Your task to perform on an android device: open app "Speedtest by Ookla" Image 0: 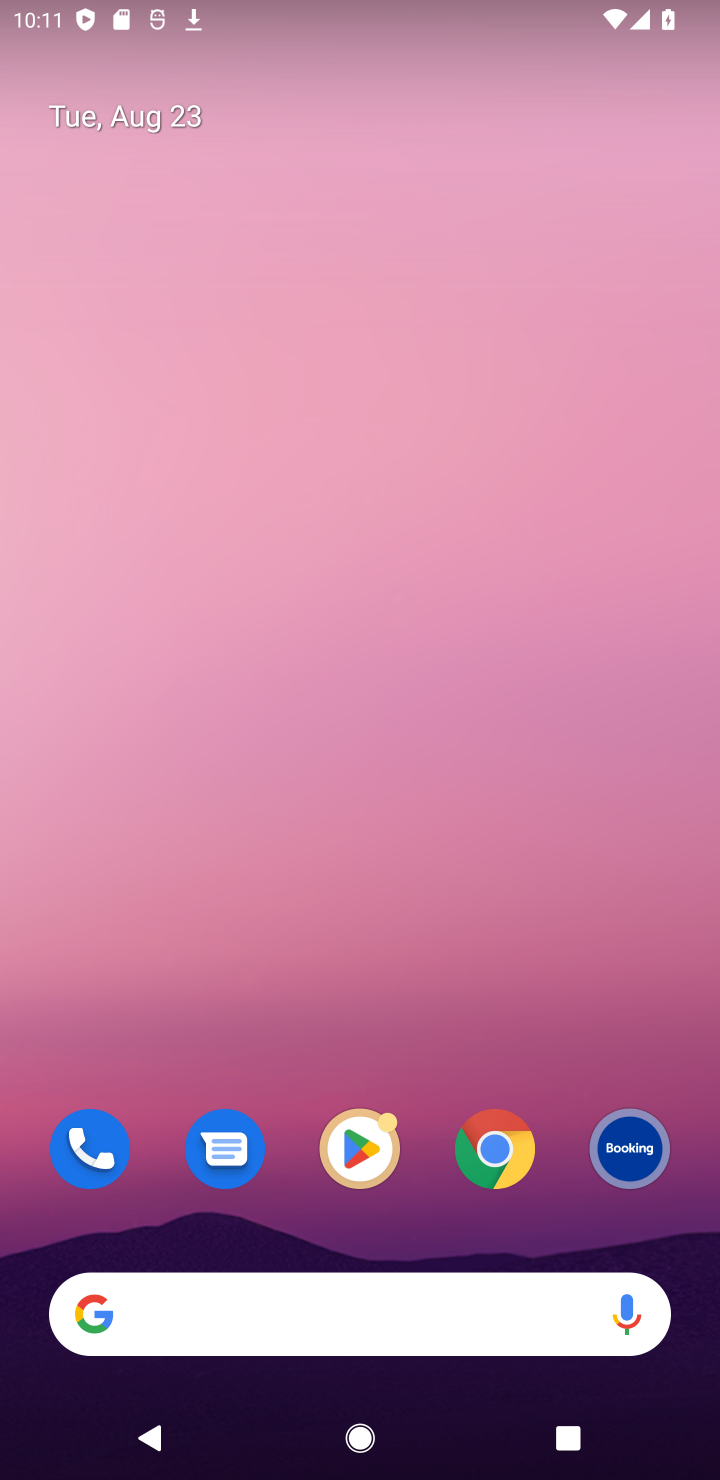
Step 0: click (338, 1168)
Your task to perform on an android device: open app "Speedtest by Ookla" Image 1: 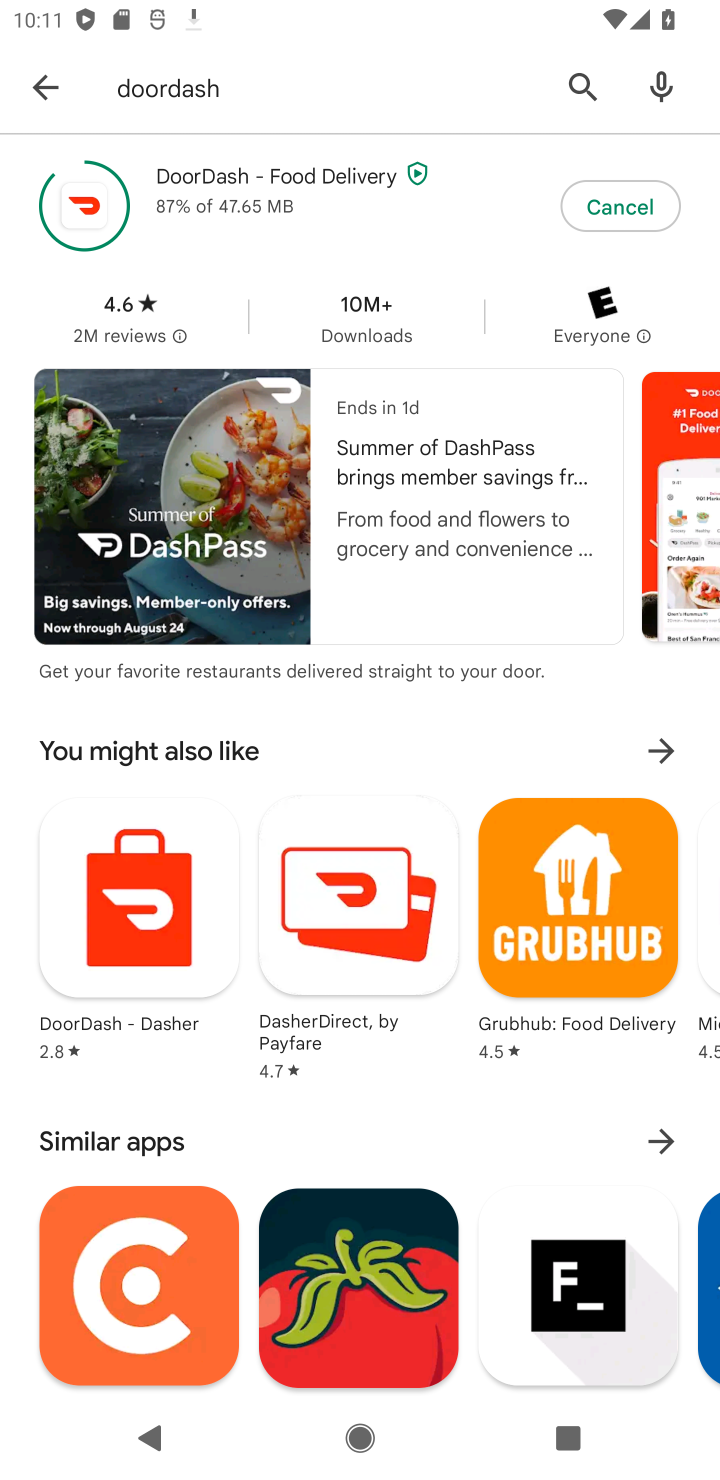
Step 1: click (586, 92)
Your task to perform on an android device: open app "Speedtest by Ookla" Image 2: 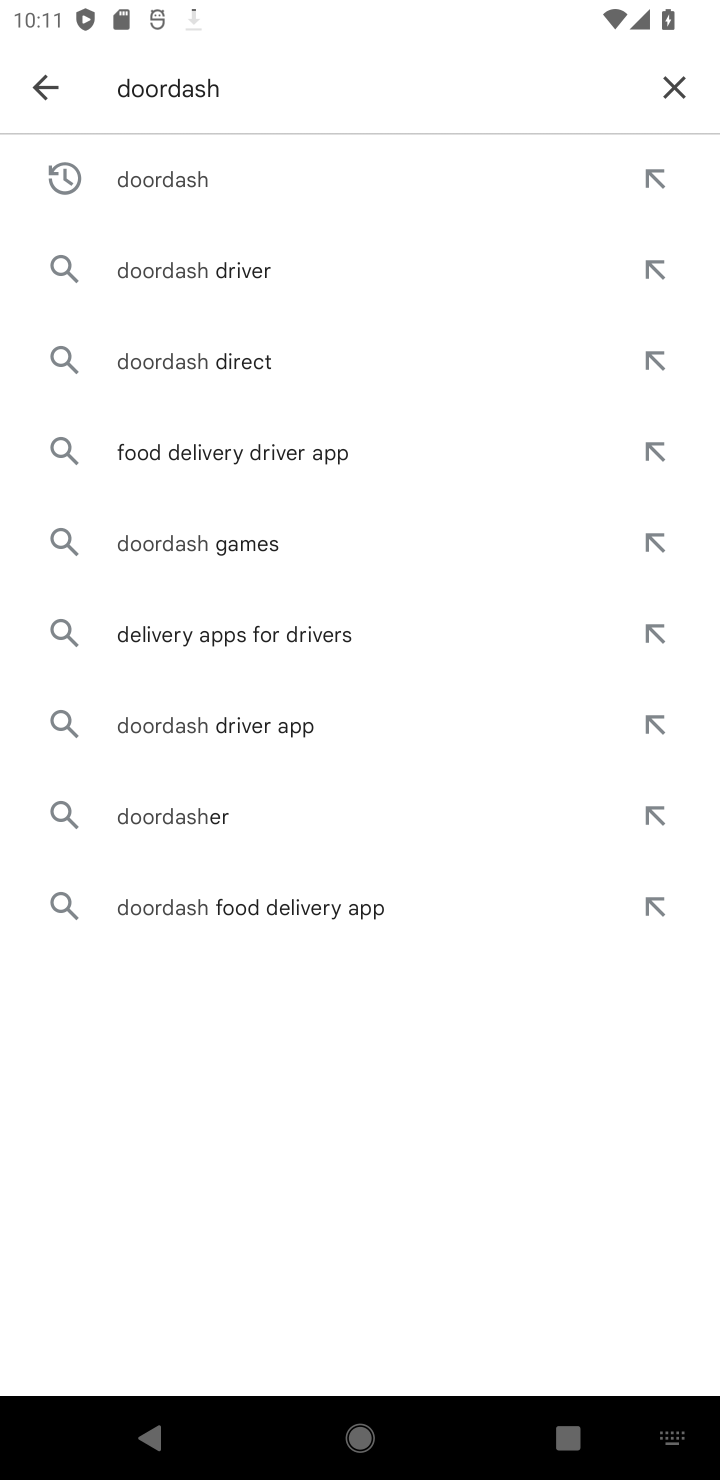
Step 2: click (665, 92)
Your task to perform on an android device: open app "Speedtest by Ookla" Image 3: 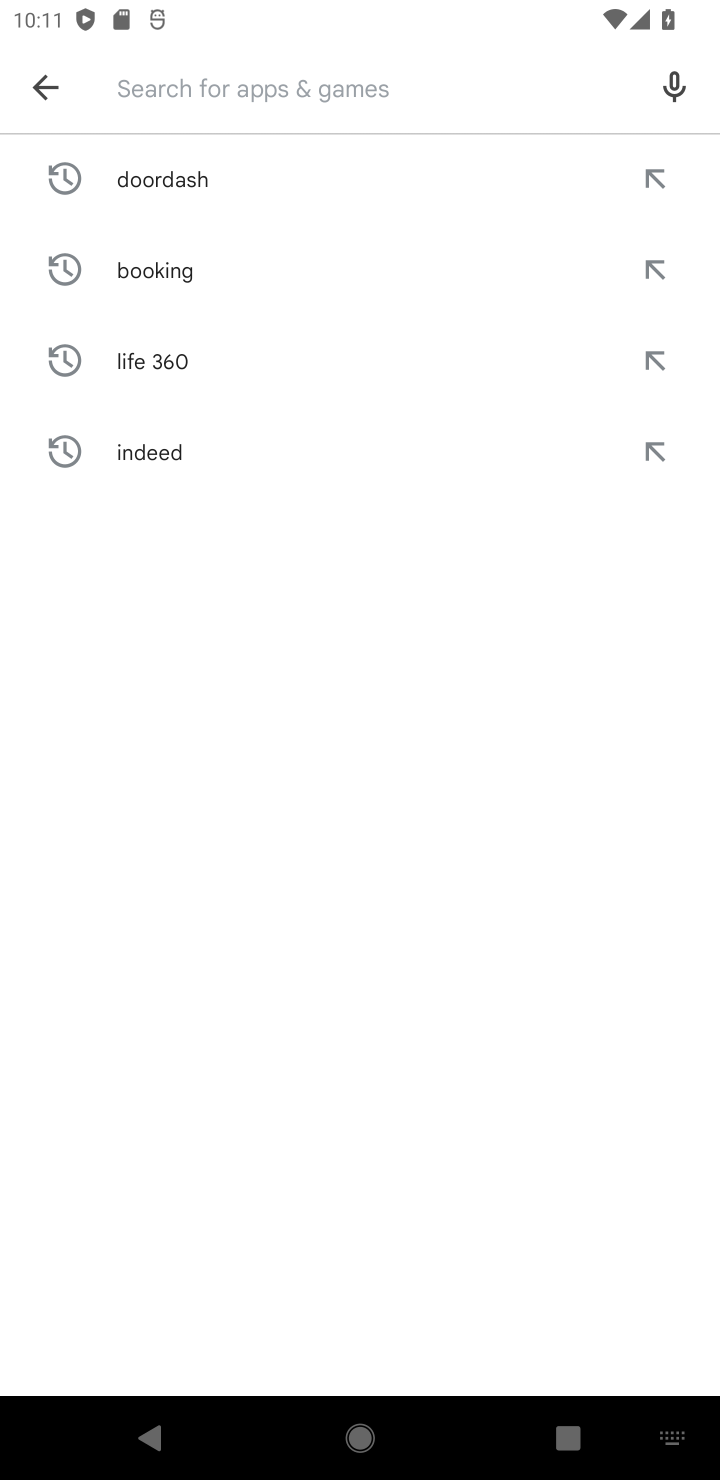
Step 3: type "speedtest"
Your task to perform on an android device: open app "Speedtest by Ookla" Image 4: 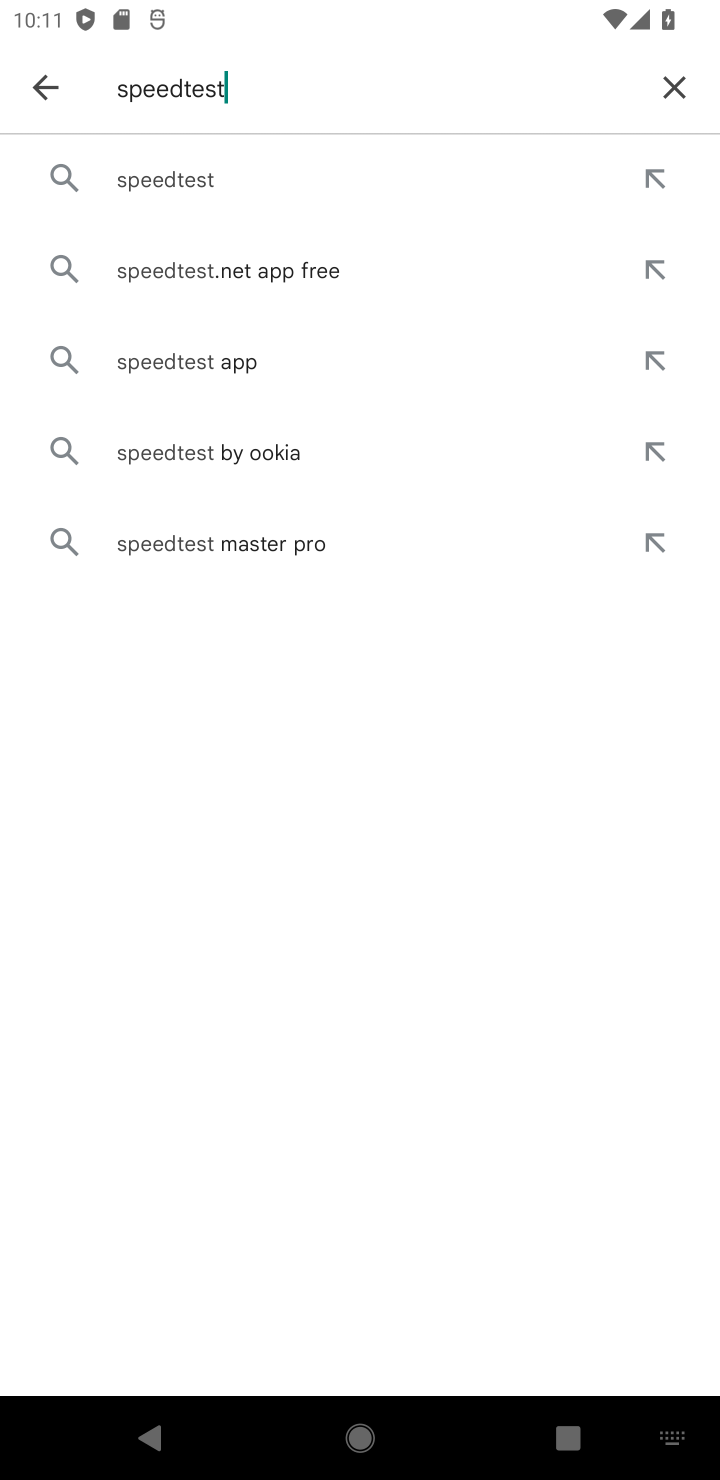
Step 4: click (381, 202)
Your task to perform on an android device: open app "Speedtest by Ookla" Image 5: 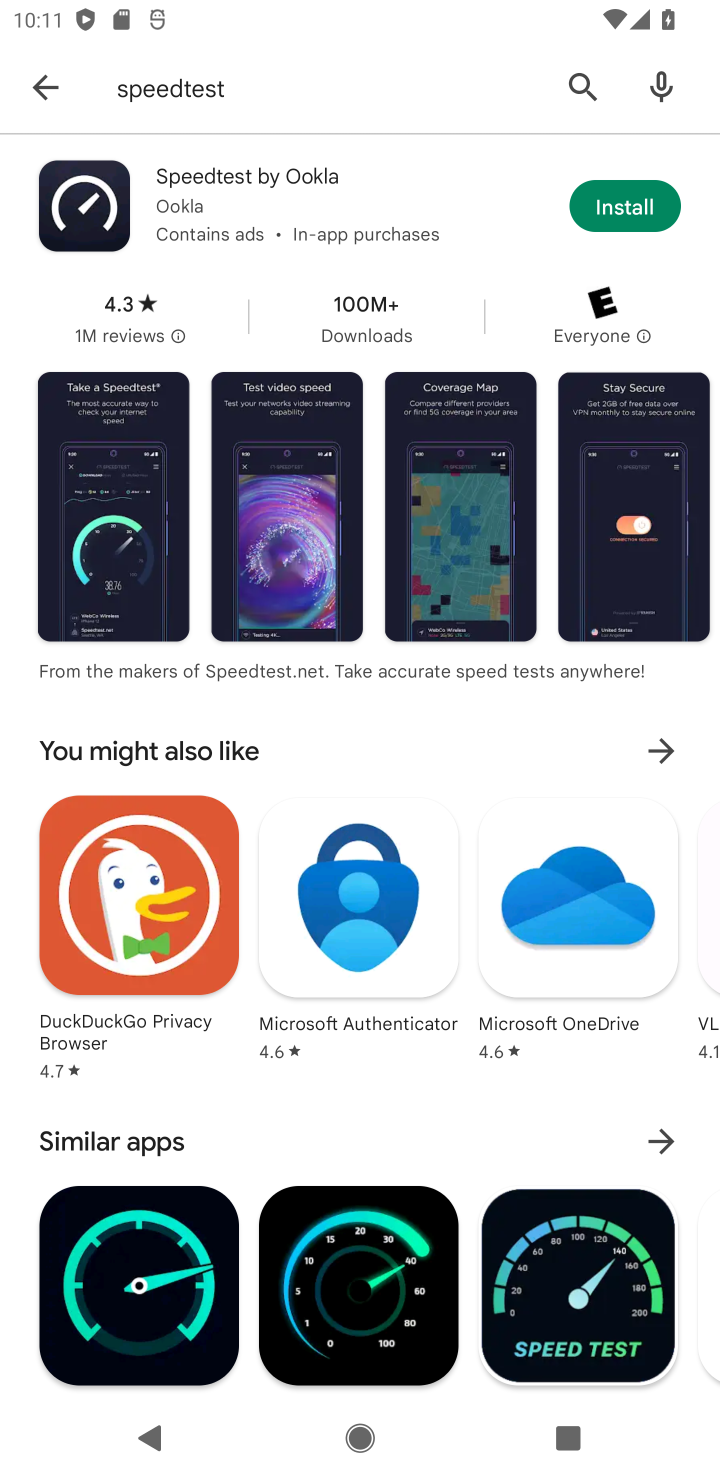
Step 5: click (597, 212)
Your task to perform on an android device: open app "Speedtest by Ookla" Image 6: 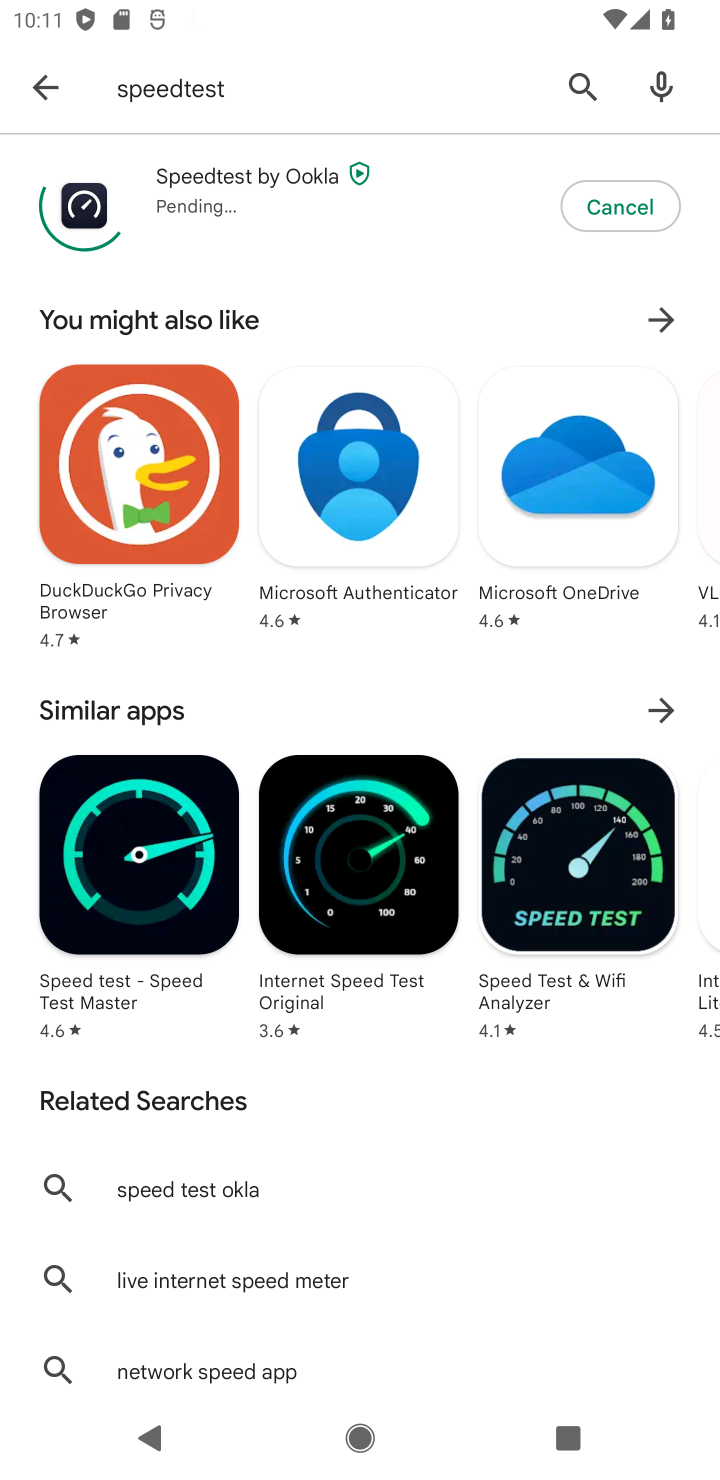
Step 6: task complete